Your task to perform on an android device: Open the calendar and show me this week's events? Image 0: 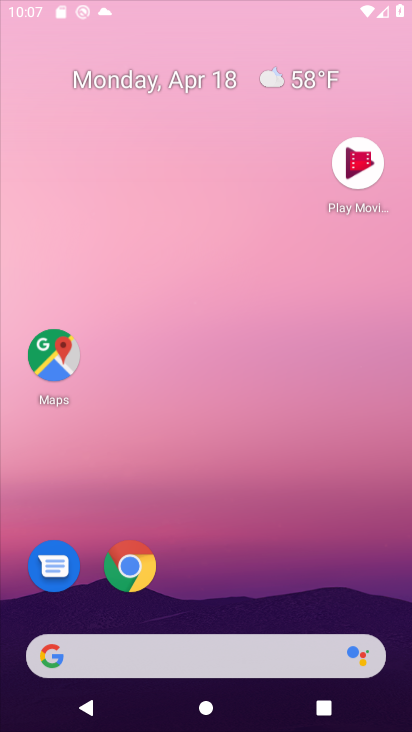
Step 0: click (297, 124)
Your task to perform on an android device: Open the calendar and show me this week's events? Image 1: 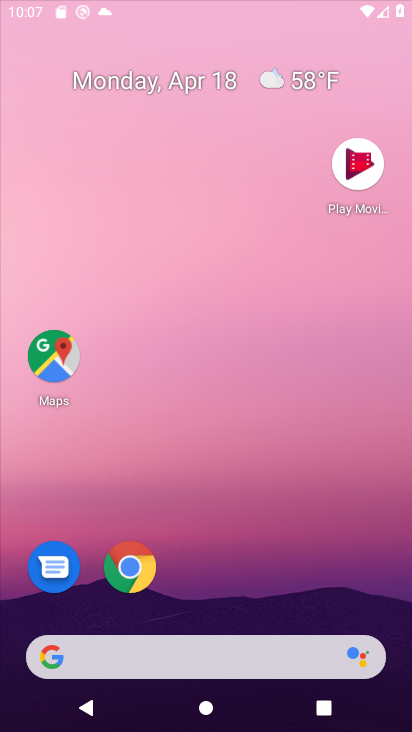
Step 1: drag from (173, 590) to (287, 7)
Your task to perform on an android device: Open the calendar and show me this week's events? Image 2: 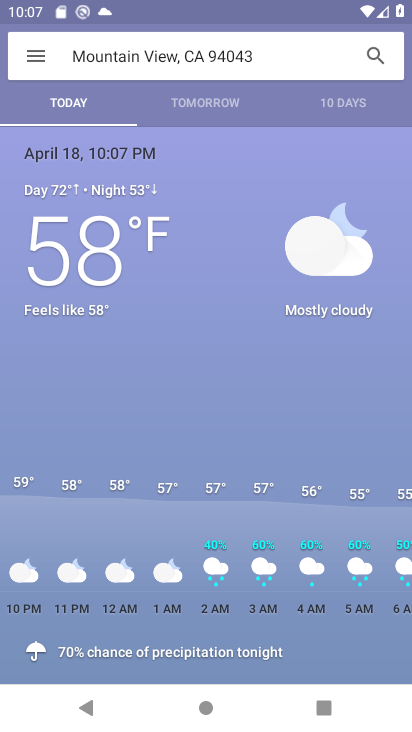
Step 2: press home button
Your task to perform on an android device: Open the calendar and show me this week's events? Image 3: 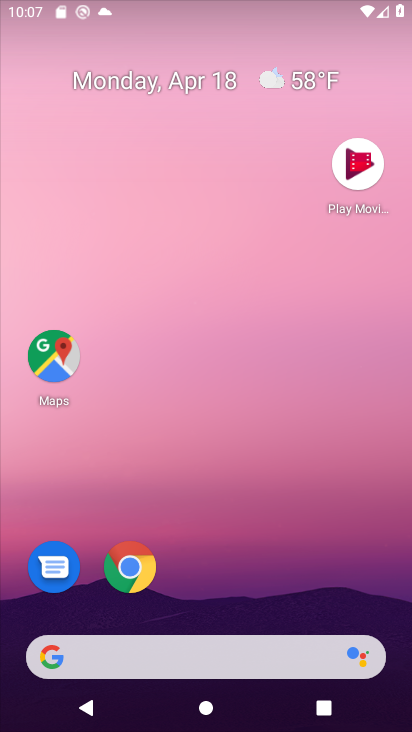
Step 3: drag from (225, 618) to (364, 12)
Your task to perform on an android device: Open the calendar and show me this week's events? Image 4: 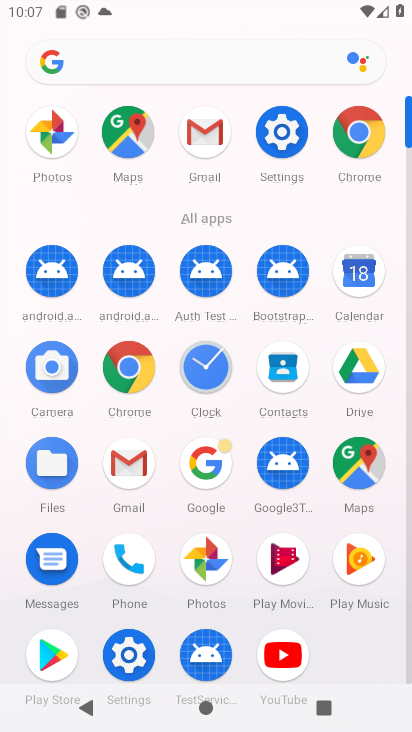
Step 4: drag from (163, 659) to (153, 245)
Your task to perform on an android device: Open the calendar and show me this week's events? Image 5: 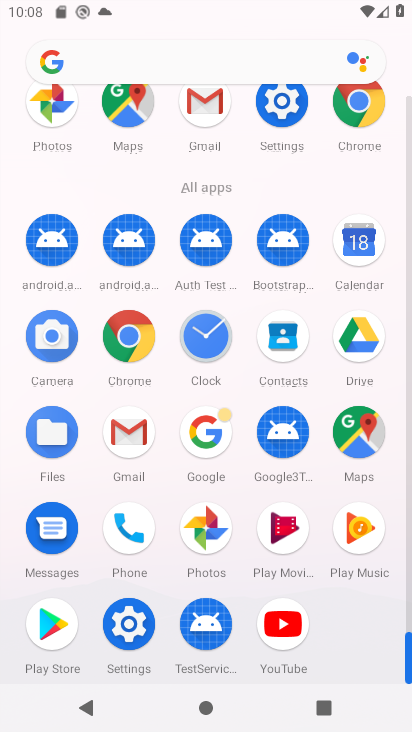
Step 5: click (210, 336)
Your task to perform on an android device: Open the calendar and show me this week's events? Image 6: 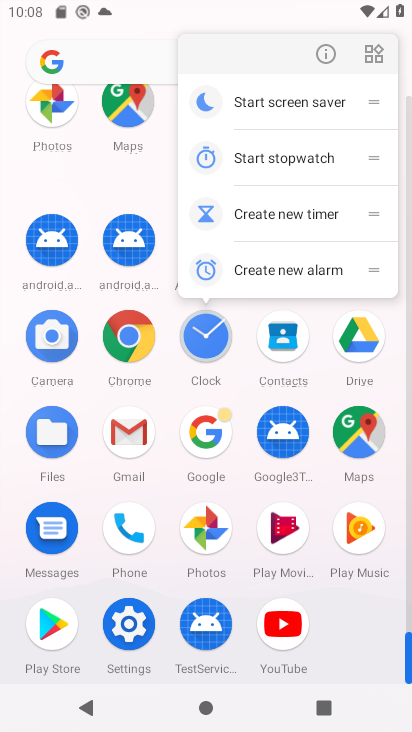
Step 6: click (322, 58)
Your task to perform on an android device: Open the calendar and show me this week's events? Image 7: 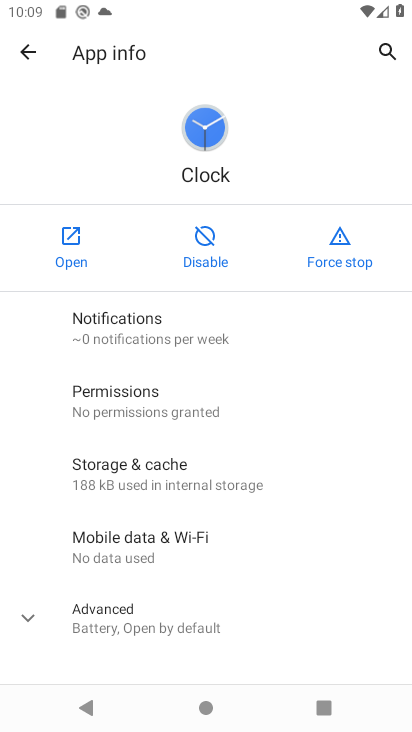
Step 7: press back button
Your task to perform on an android device: Open the calendar and show me this week's events? Image 8: 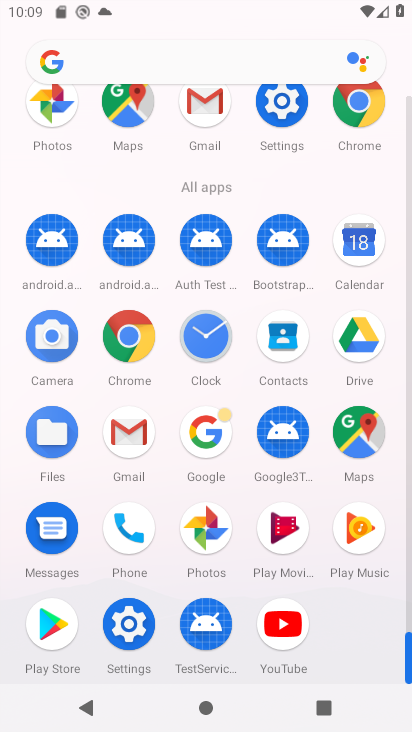
Step 8: click (359, 247)
Your task to perform on an android device: Open the calendar and show me this week's events? Image 9: 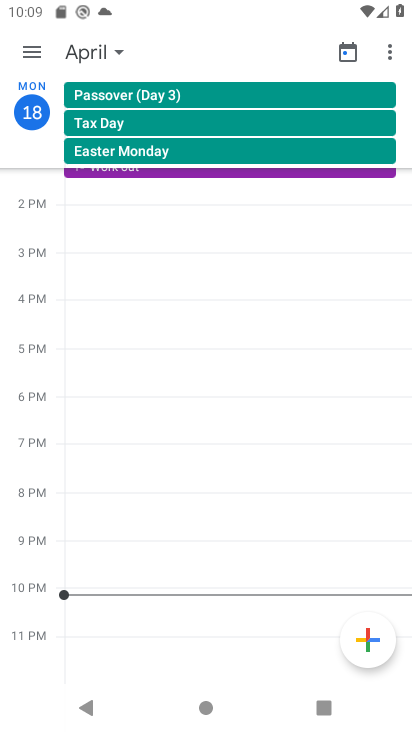
Step 9: drag from (210, 254) to (294, 645)
Your task to perform on an android device: Open the calendar and show me this week's events? Image 10: 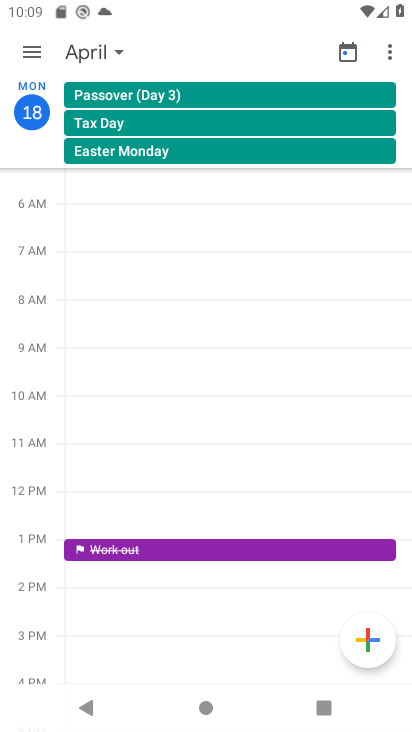
Step 10: click (33, 60)
Your task to perform on an android device: Open the calendar and show me this week's events? Image 11: 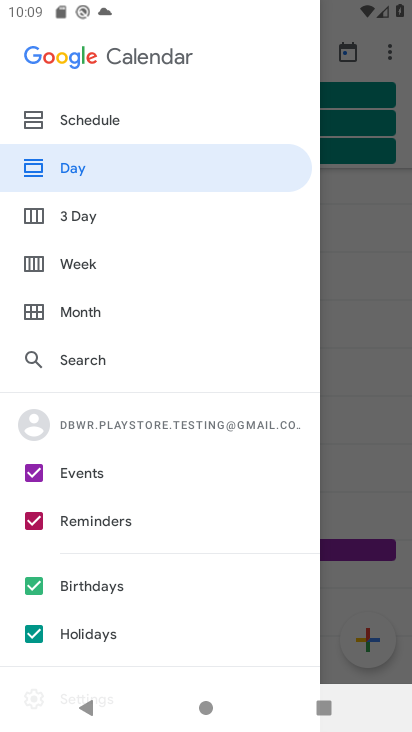
Step 11: click (28, 519)
Your task to perform on an android device: Open the calendar and show me this week's events? Image 12: 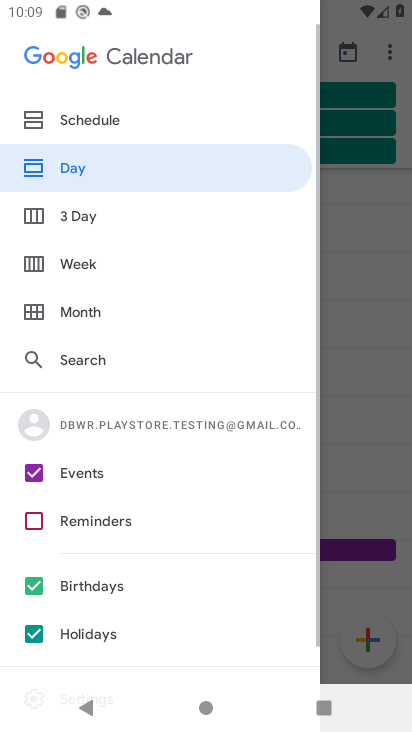
Step 12: click (27, 590)
Your task to perform on an android device: Open the calendar and show me this week's events? Image 13: 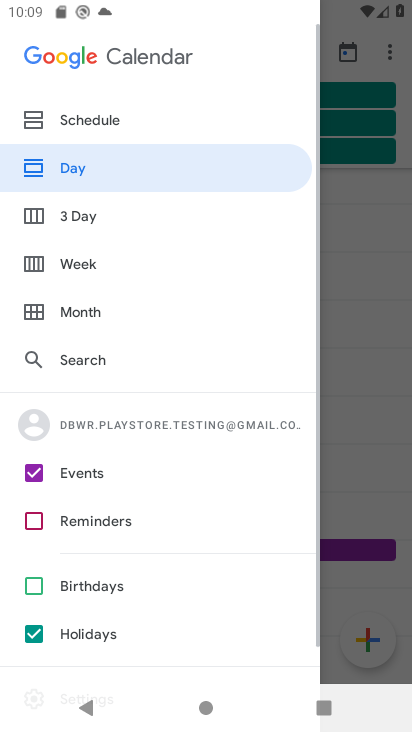
Step 13: click (21, 633)
Your task to perform on an android device: Open the calendar and show me this week's events? Image 14: 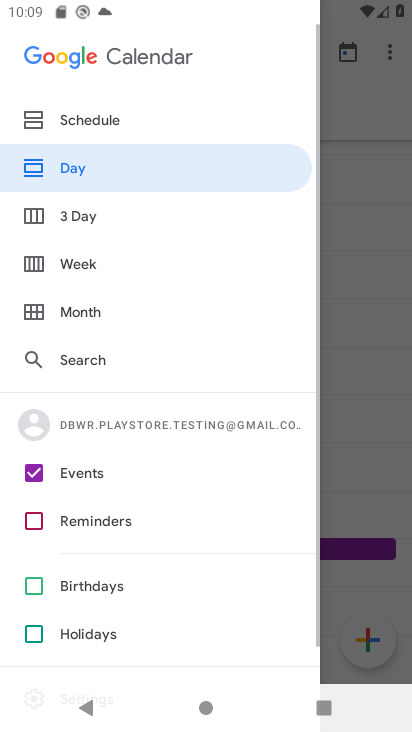
Step 14: drag from (76, 624) to (143, 242)
Your task to perform on an android device: Open the calendar and show me this week's events? Image 15: 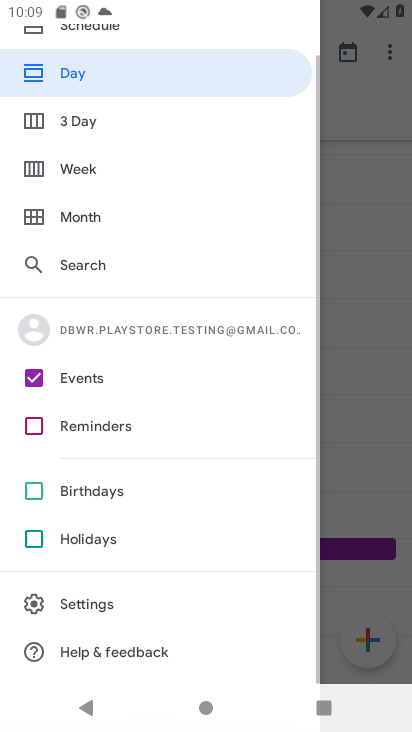
Step 15: drag from (166, 252) to (154, 695)
Your task to perform on an android device: Open the calendar and show me this week's events? Image 16: 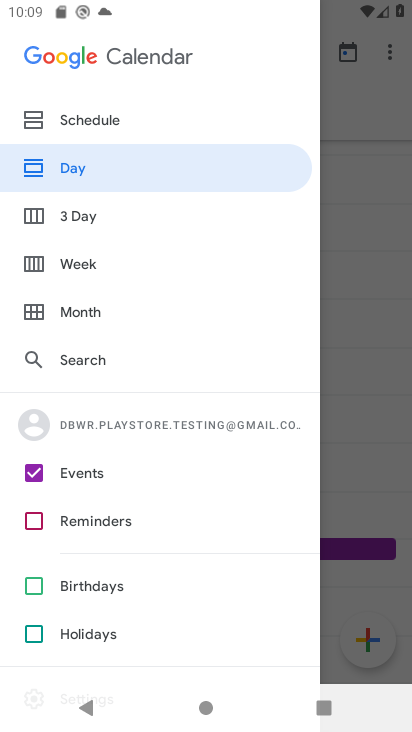
Step 16: click (92, 264)
Your task to perform on an android device: Open the calendar and show me this week's events? Image 17: 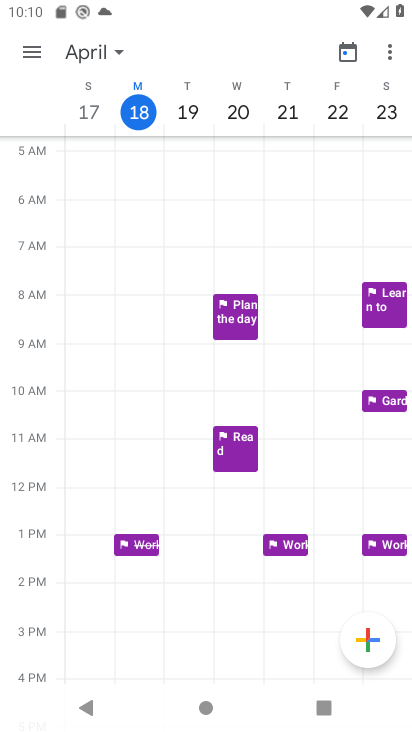
Step 17: task complete